Your task to perform on an android device: Go to battery settings Image 0: 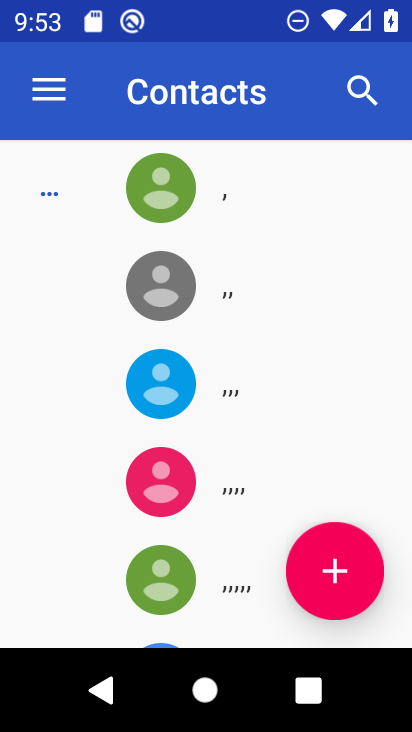
Step 0: press home button
Your task to perform on an android device: Go to battery settings Image 1: 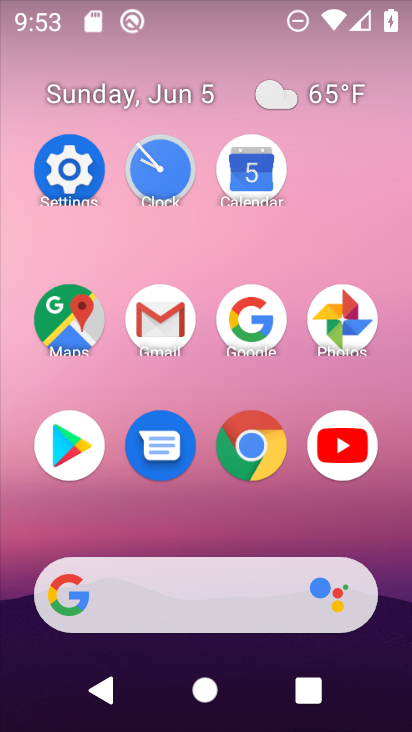
Step 1: click (68, 183)
Your task to perform on an android device: Go to battery settings Image 2: 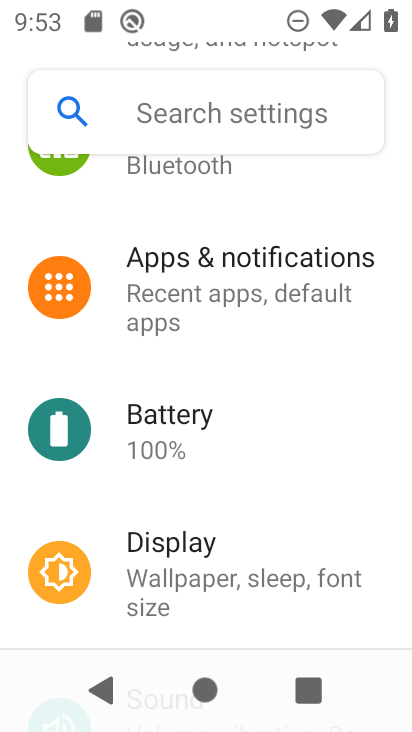
Step 2: click (275, 429)
Your task to perform on an android device: Go to battery settings Image 3: 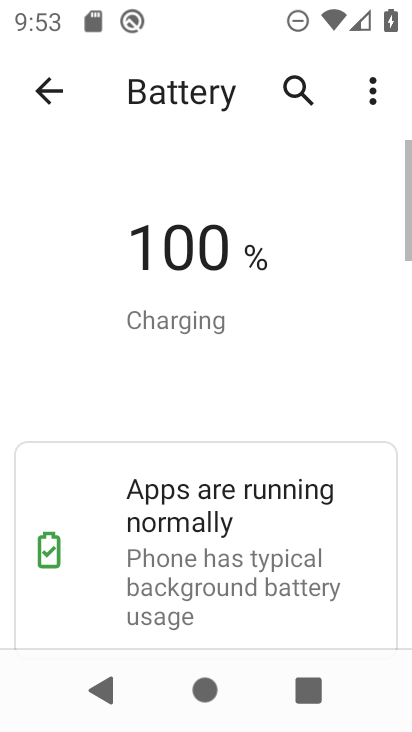
Step 3: task complete